Your task to perform on an android device: delete location history Image 0: 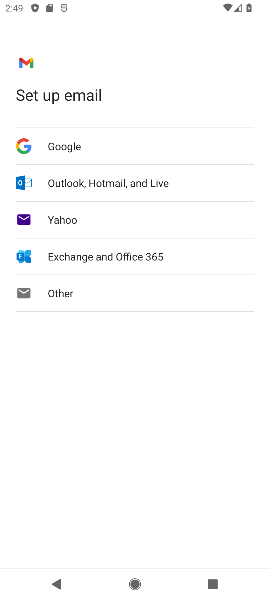
Step 0: press home button
Your task to perform on an android device: delete location history Image 1: 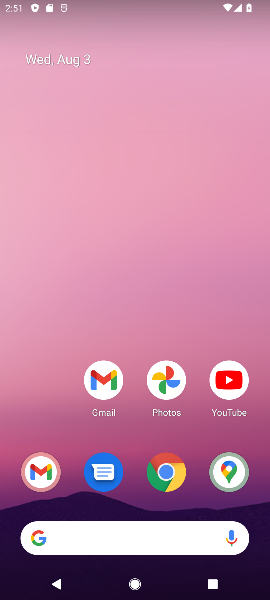
Step 1: drag from (194, 429) to (60, 48)
Your task to perform on an android device: delete location history Image 2: 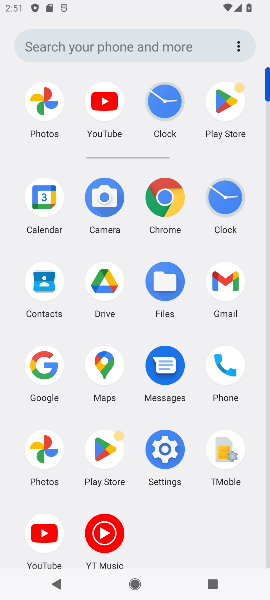
Step 2: click (152, 457)
Your task to perform on an android device: delete location history Image 3: 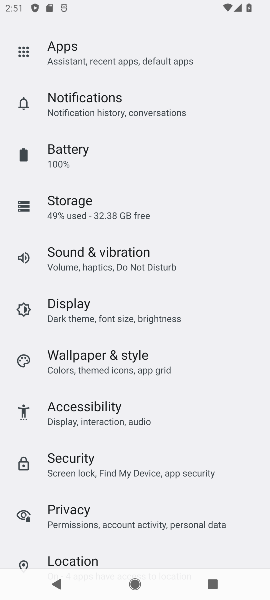
Step 3: click (98, 555)
Your task to perform on an android device: delete location history Image 4: 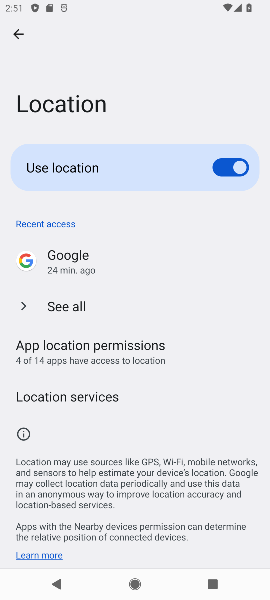
Step 4: click (66, 412)
Your task to perform on an android device: delete location history Image 5: 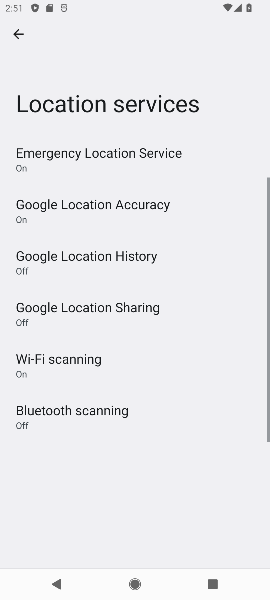
Step 5: click (113, 260)
Your task to perform on an android device: delete location history Image 6: 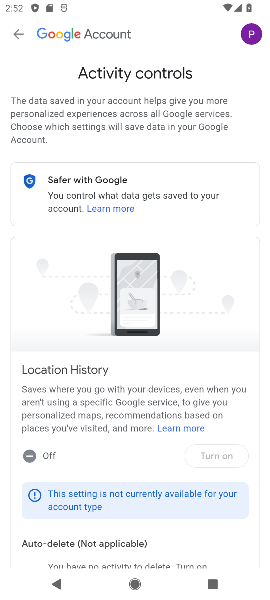
Step 6: drag from (148, 457) to (148, 219)
Your task to perform on an android device: delete location history Image 7: 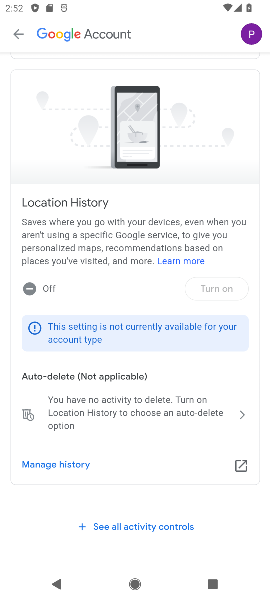
Step 7: click (135, 411)
Your task to perform on an android device: delete location history Image 8: 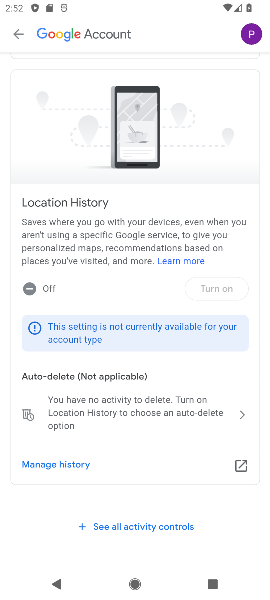
Step 8: task complete